Your task to perform on an android device: Open eBay Image 0: 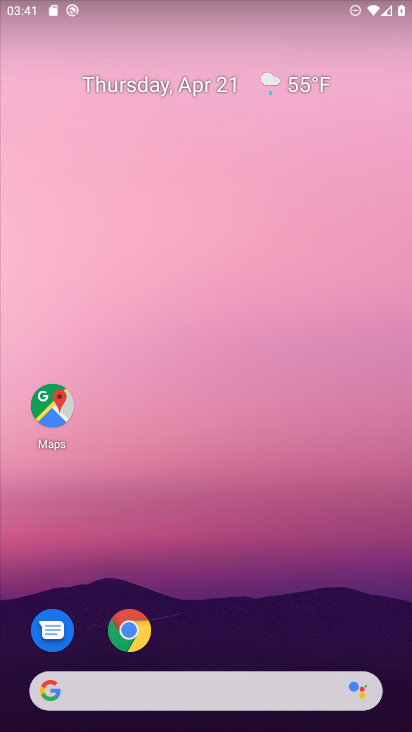
Step 0: click (136, 628)
Your task to perform on an android device: Open eBay Image 1: 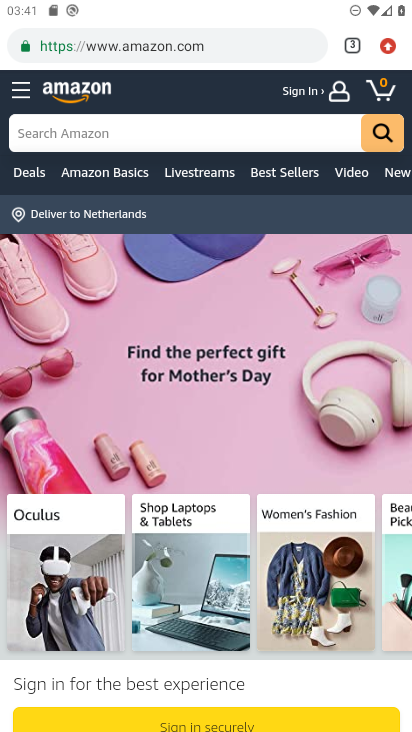
Step 1: click (234, 59)
Your task to perform on an android device: Open eBay Image 2: 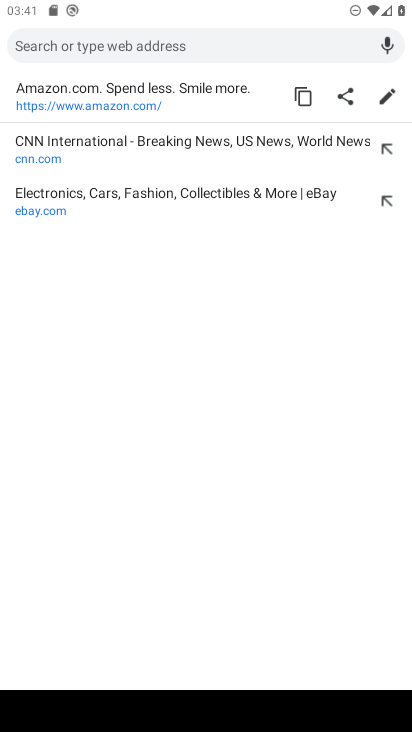
Step 2: click (96, 185)
Your task to perform on an android device: Open eBay Image 3: 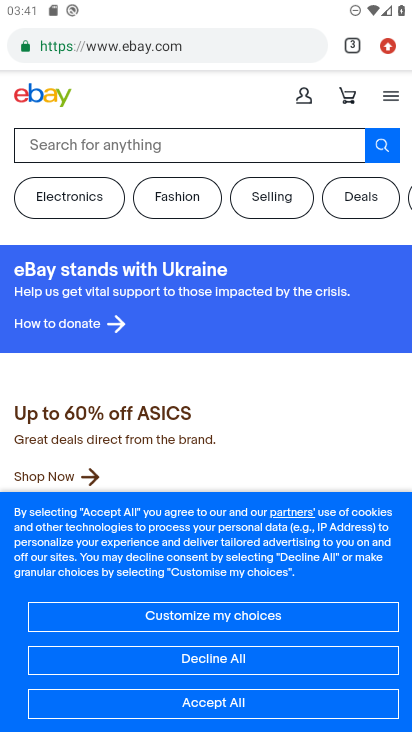
Step 3: task complete